Your task to perform on an android device: Is it going to rain tomorrow? Image 0: 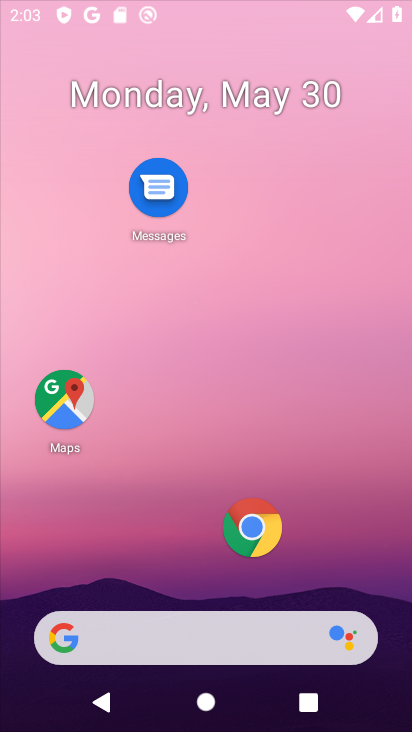
Step 0: click (289, 152)
Your task to perform on an android device: Is it going to rain tomorrow? Image 1: 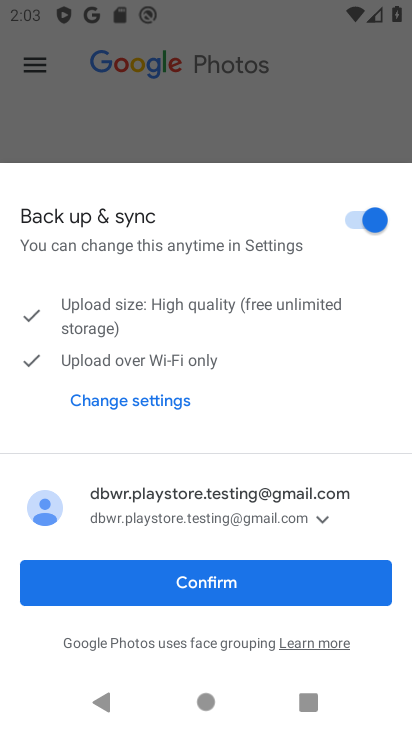
Step 1: press home button
Your task to perform on an android device: Is it going to rain tomorrow? Image 2: 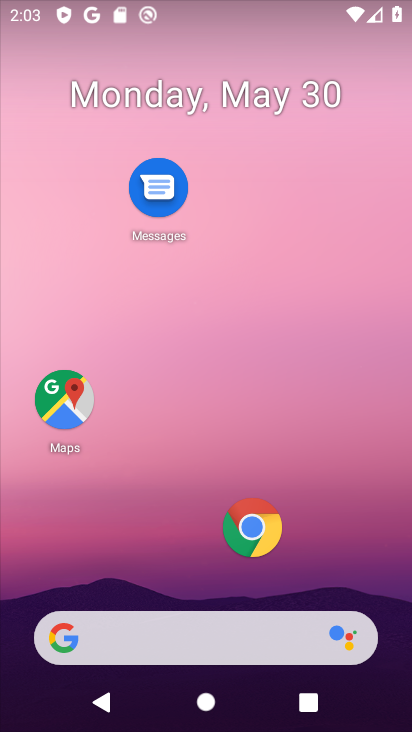
Step 2: drag from (196, 555) to (246, 137)
Your task to perform on an android device: Is it going to rain tomorrow? Image 3: 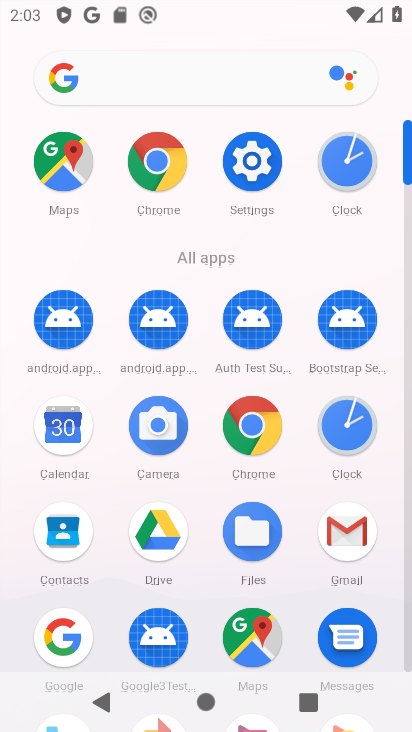
Step 3: click (72, 648)
Your task to perform on an android device: Is it going to rain tomorrow? Image 4: 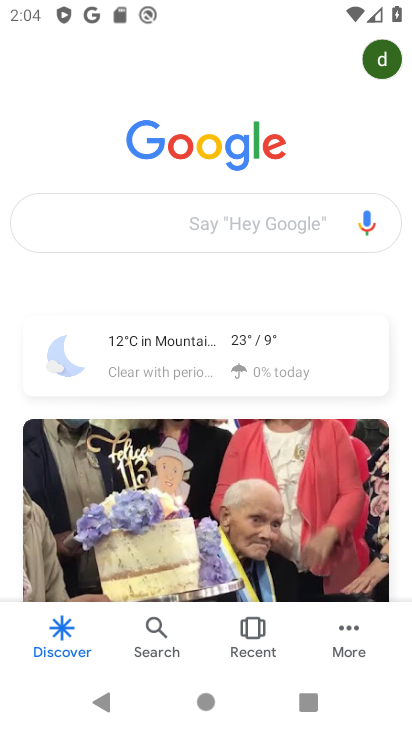
Step 4: click (199, 347)
Your task to perform on an android device: Is it going to rain tomorrow? Image 5: 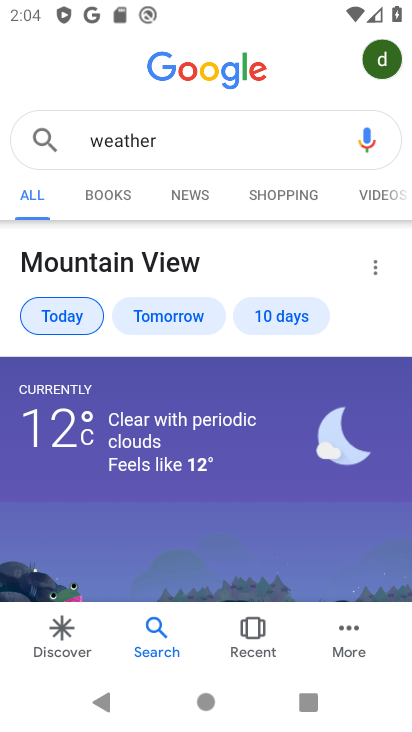
Step 5: click (173, 321)
Your task to perform on an android device: Is it going to rain tomorrow? Image 6: 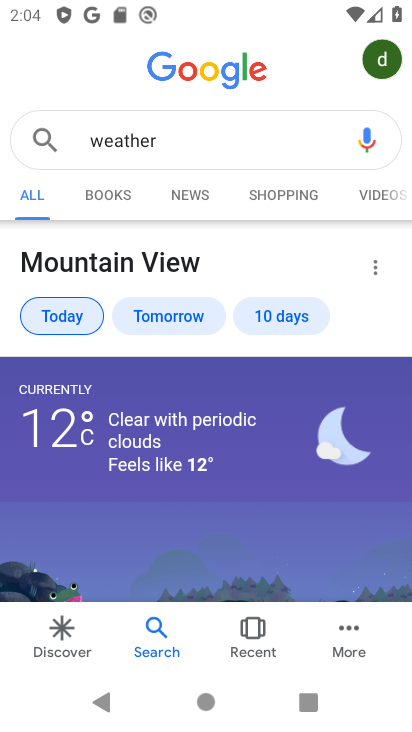
Step 6: task complete